Your task to perform on an android device: When is my next meeting? Image 0: 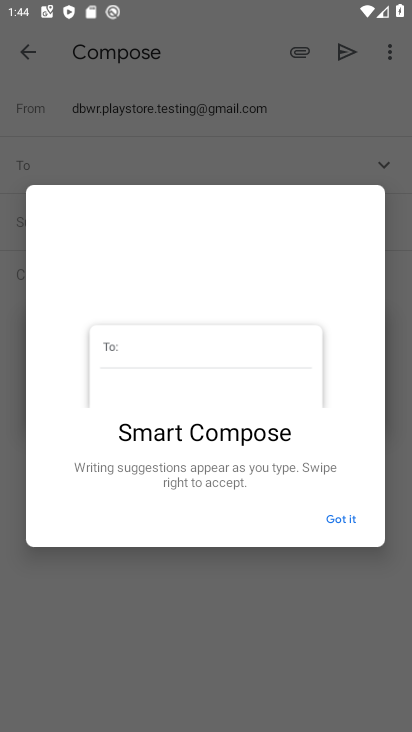
Step 0: press home button
Your task to perform on an android device: When is my next meeting? Image 1: 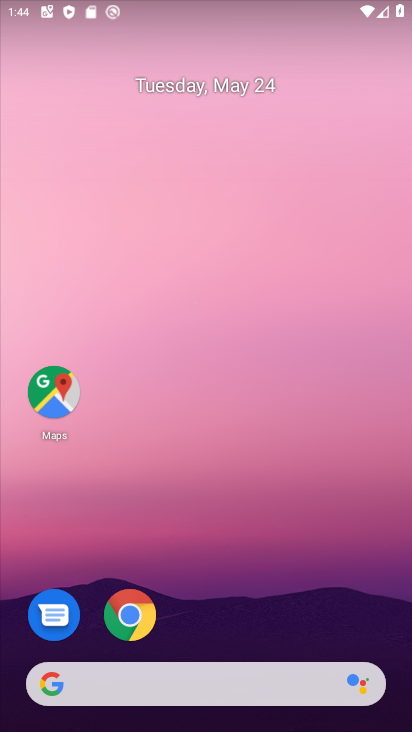
Step 1: drag from (222, 632) to (272, 58)
Your task to perform on an android device: When is my next meeting? Image 2: 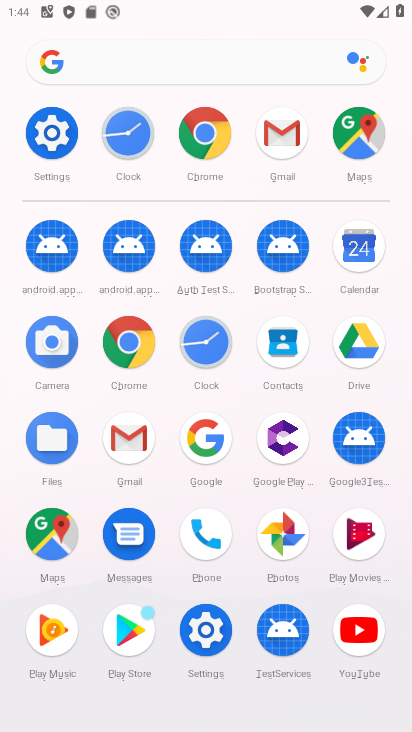
Step 2: click (358, 241)
Your task to perform on an android device: When is my next meeting? Image 3: 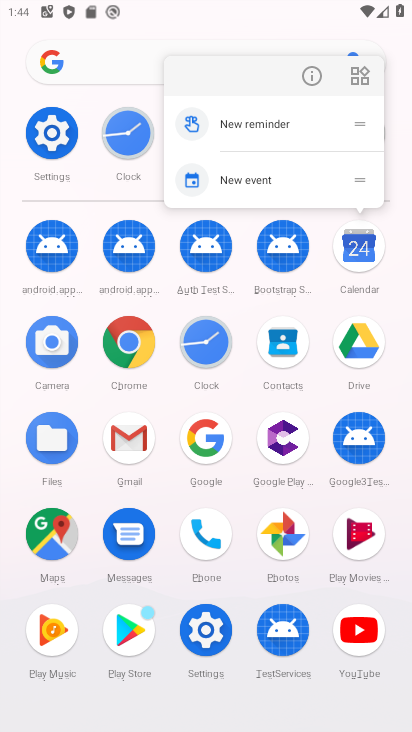
Step 3: click (362, 243)
Your task to perform on an android device: When is my next meeting? Image 4: 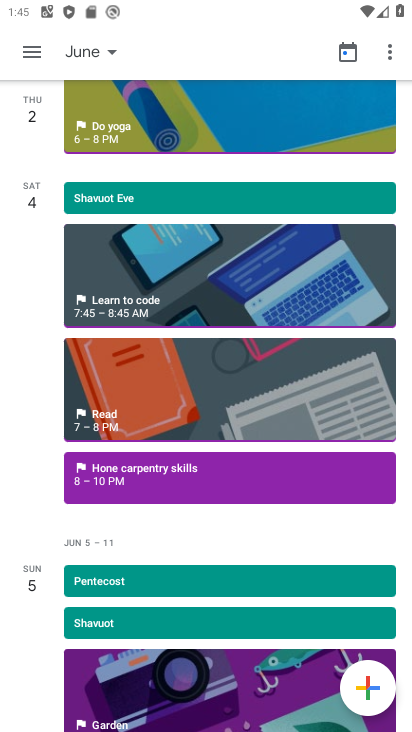
Step 4: task complete